Your task to perform on an android device: toggle show notifications on the lock screen Image 0: 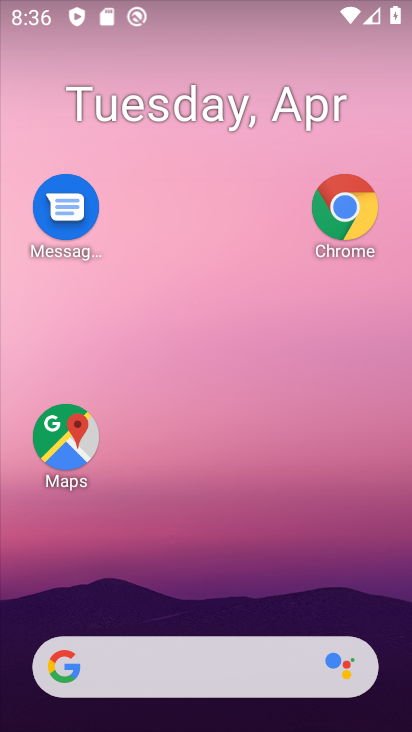
Step 0: drag from (224, 626) to (192, 36)
Your task to perform on an android device: toggle show notifications on the lock screen Image 1: 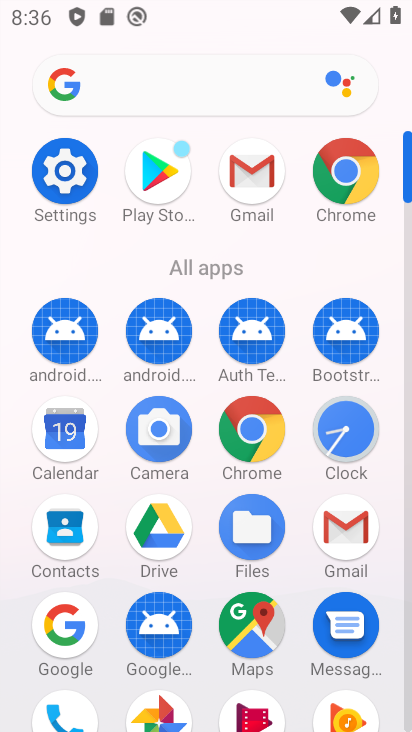
Step 1: click (64, 186)
Your task to perform on an android device: toggle show notifications on the lock screen Image 2: 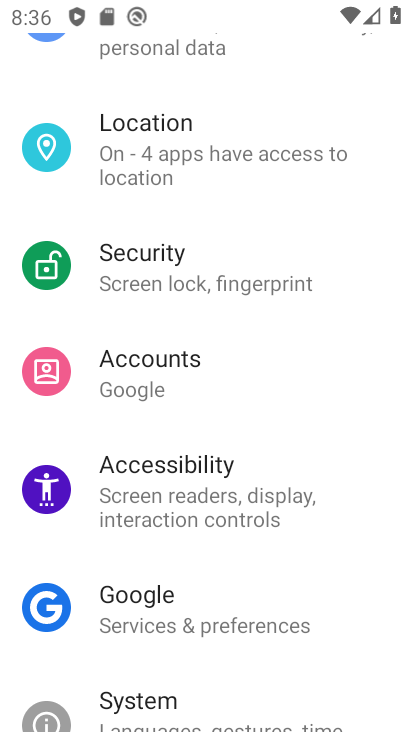
Step 2: drag from (153, 182) to (141, 545)
Your task to perform on an android device: toggle show notifications on the lock screen Image 3: 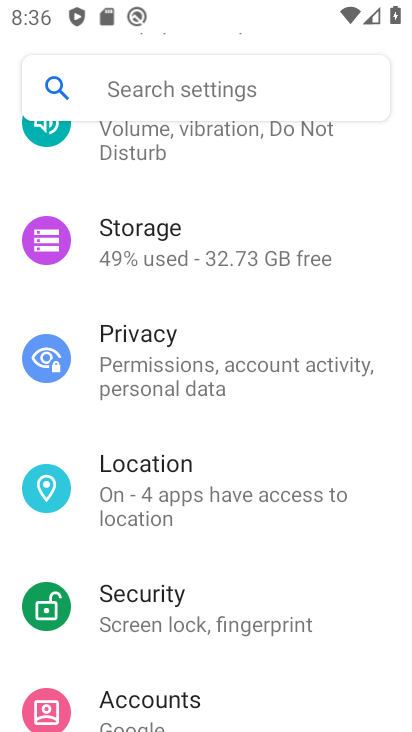
Step 3: drag from (151, 212) to (149, 680)
Your task to perform on an android device: toggle show notifications on the lock screen Image 4: 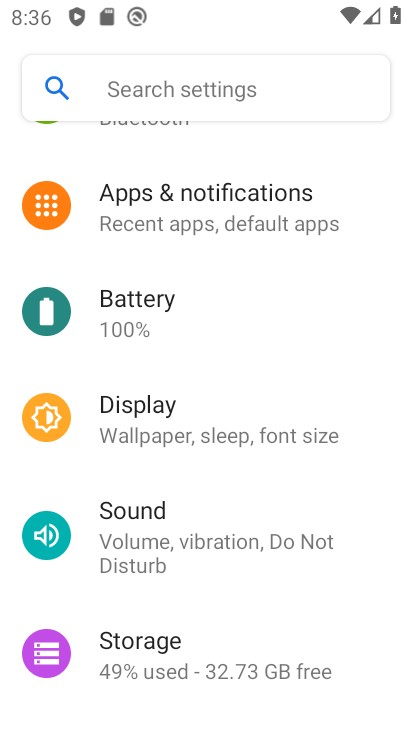
Step 4: click (154, 228)
Your task to perform on an android device: toggle show notifications on the lock screen Image 5: 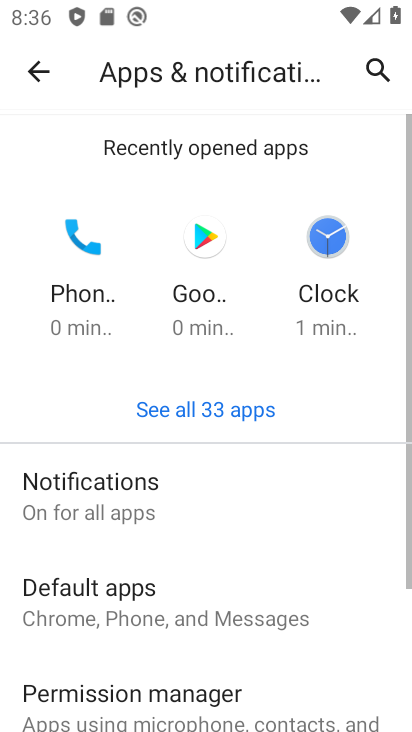
Step 5: click (154, 477)
Your task to perform on an android device: toggle show notifications on the lock screen Image 6: 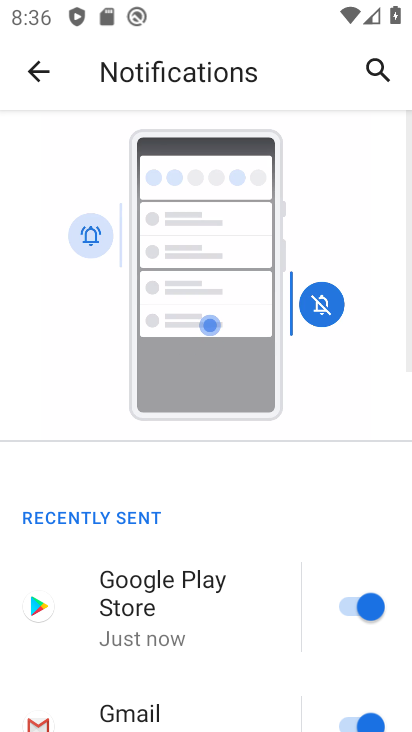
Step 6: drag from (220, 678) to (216, 49)
Your task to perform on an android device: toggle show notifications on the lock screen Image 7: 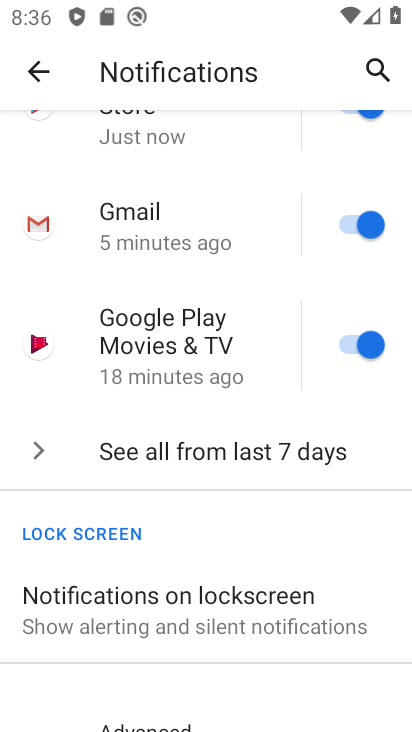
Step 7: click (211, 621)
Your task to perform on an android device: toggle show notifications on the lock screen Image 8: 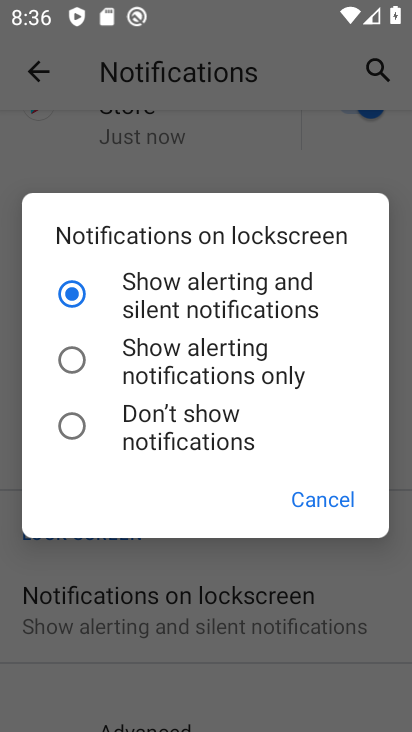
Step 8: task complete